Your task to perform on an android device: Open Google Chrome Image 0: 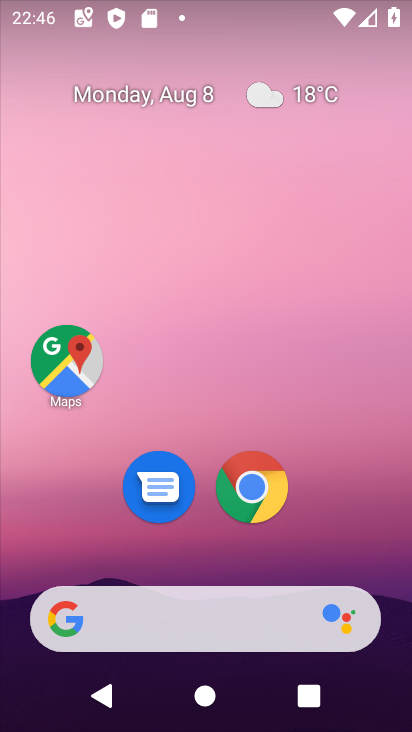
Step 0: click (252, 482)
Your task to perform on an android device: Open Google Chrome Image 1: 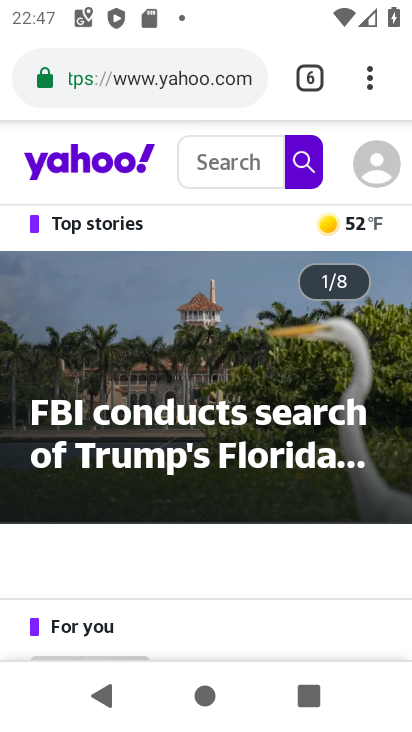
Step 1: task complete